Your task to perform on an android device: turn on wifi Image 0: 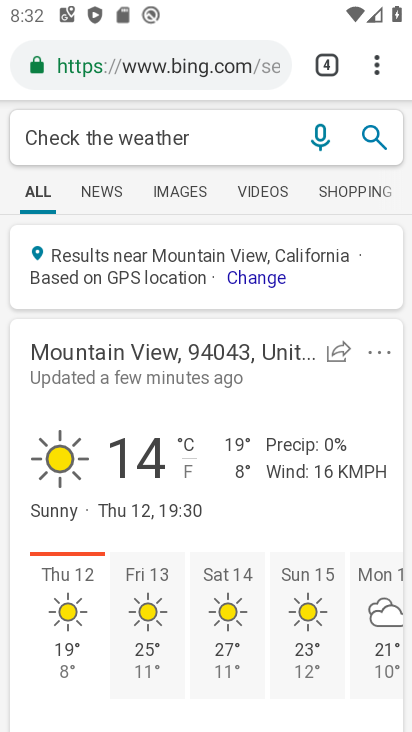
Step 0: press home button
Your task to perform on an android device: turn on wifi Image 1: 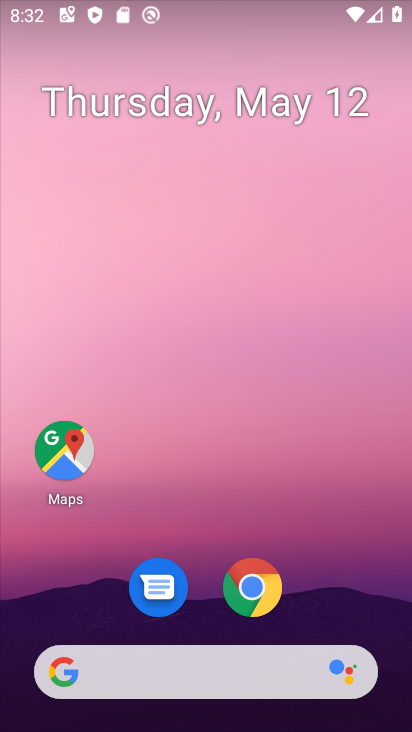
Step 1: drag from (330, 523) to (357, 218)
Your task to perform on an android device: turn on wifi Image 2: 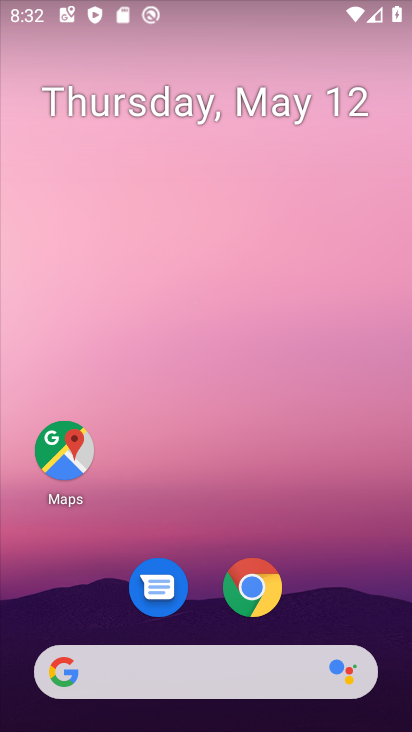
Step 2: drag from (312, 610) to (395, 133)
Your task to perform on an android device: turn on wifi Image 3: 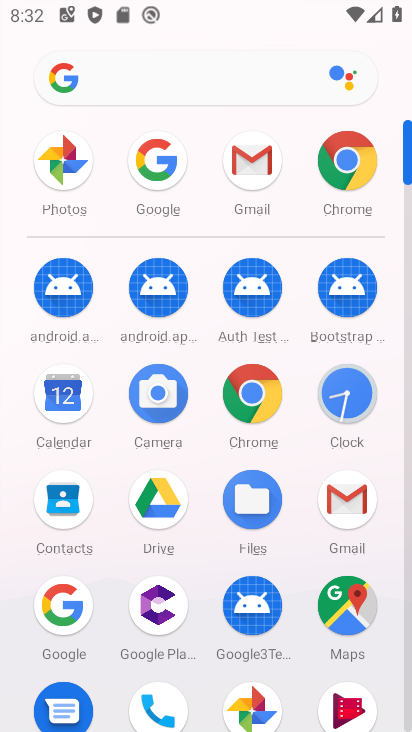
Step 3: drag from (166, 626) to (240, 284)
Your task to perform on an android device: turn on wifi Image 4: 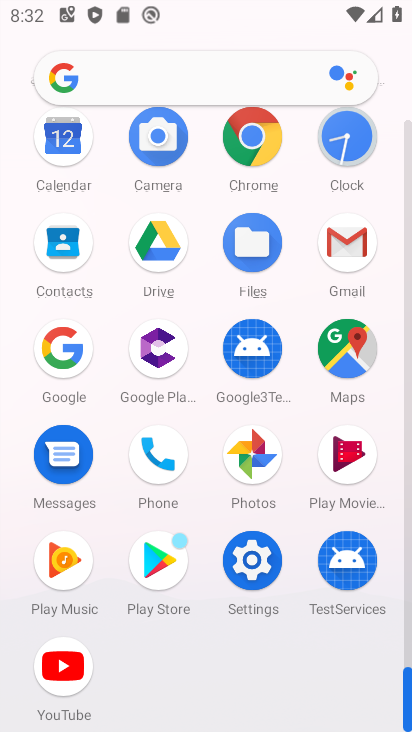
Step 4: click (249, 565)
Your task to perform on an android device: turn on wifi Image 5: 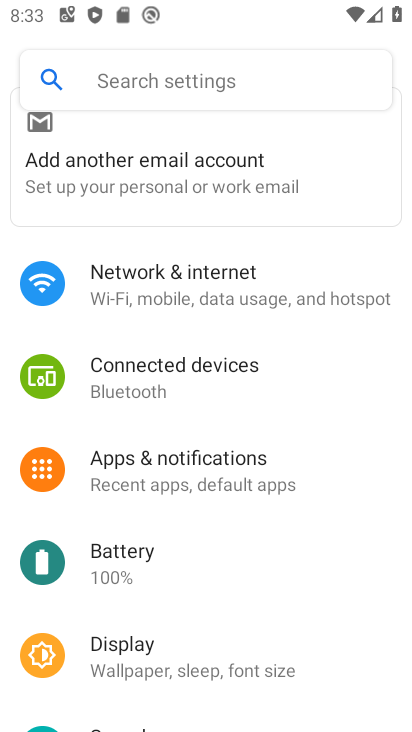
Step 5: click (167, 282)
Your task to perform on an android device: turn on wifi Image 6: 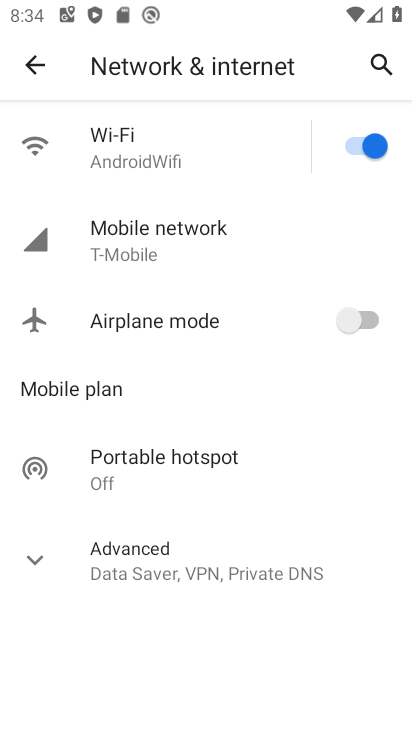
Step 6: task complete